Your task to perform on an android device: Open network settings Image 0: 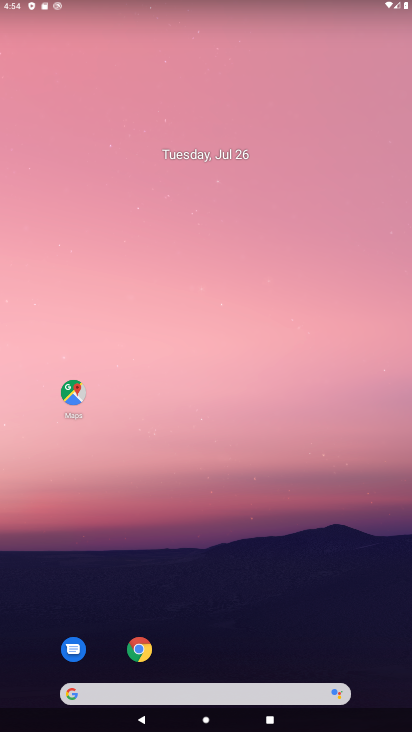
Step 0: drag from (230, 654) to (182, 12)
Your task to perform on an android device: Open network settings Image 1: 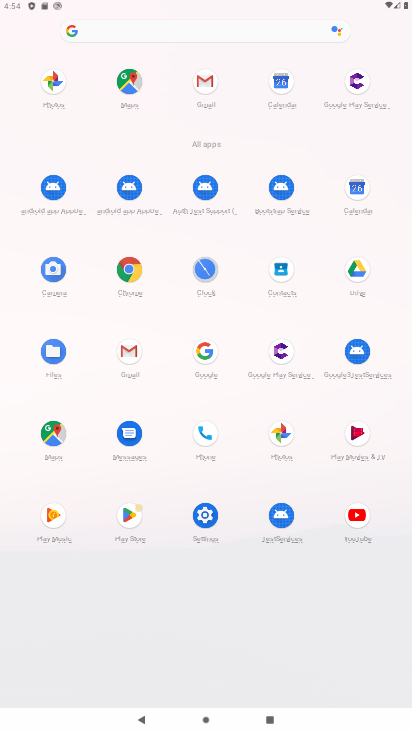
Step 1: click (209, 514)
Your task to perform on an android device: Open network settings Image 2: 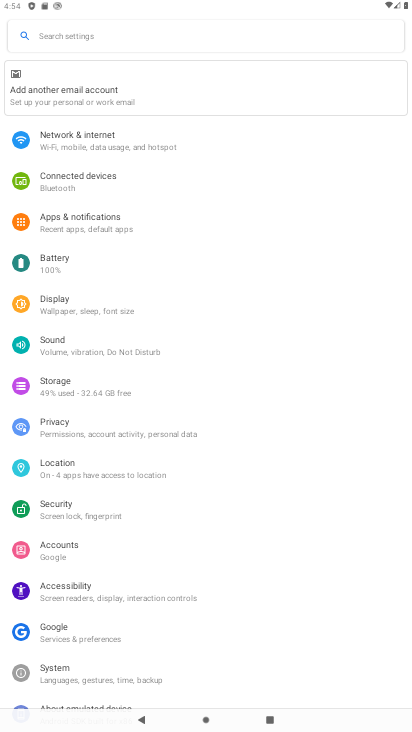
Step 2: click (132, 149)
Your task to perform on an android device: Open network settings Image 3: 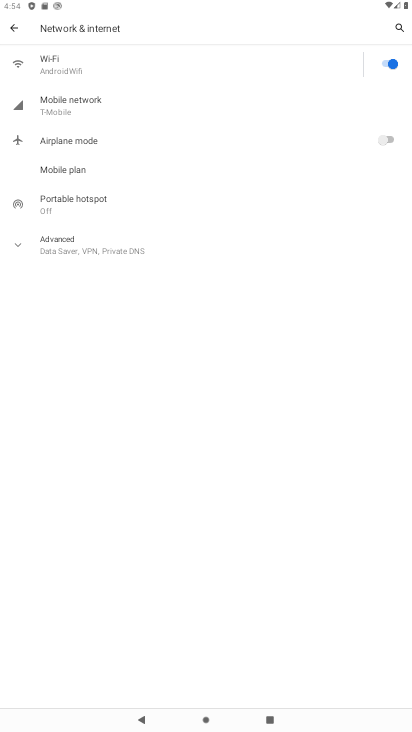
Step 3: task complete